Your task to perform on an android device: install app "Expedia: Hotels, Flights & Car" Image 0: 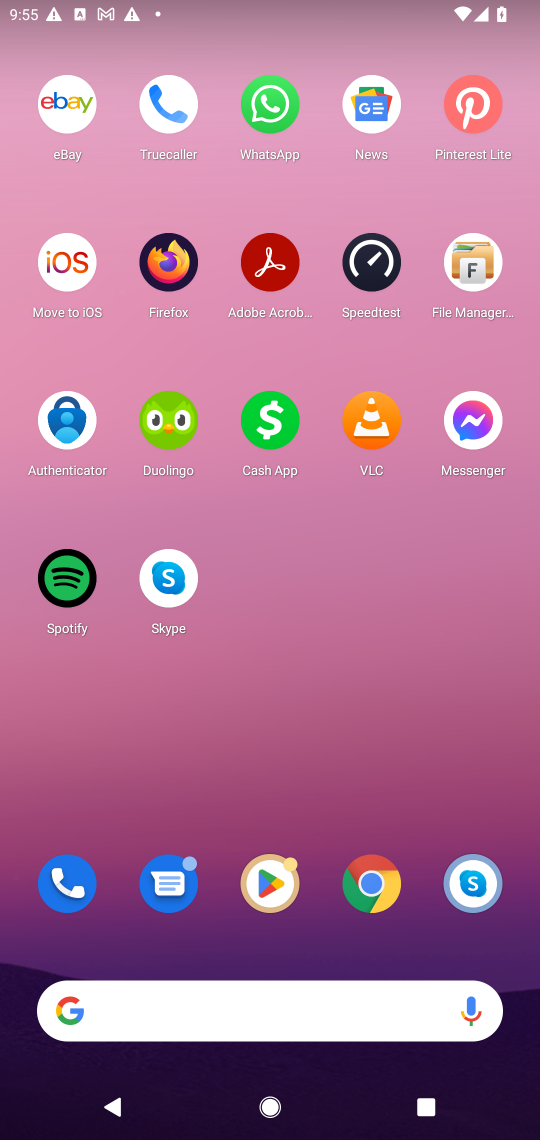
Step 0: click (277, 889)
Your task to perform on an android device: install app "Expedia: Hotels, Flights & Car" Image 1: 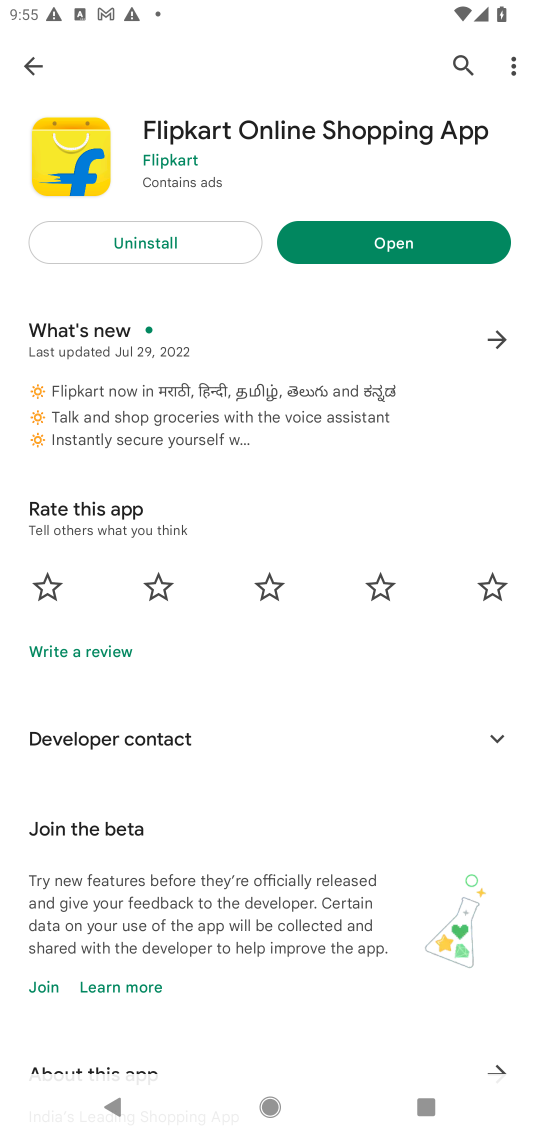
Step 1: click (448, 61)
Your task to perform on an android device: install app "Expedia: Hotels, Flights & Car" Image 2: 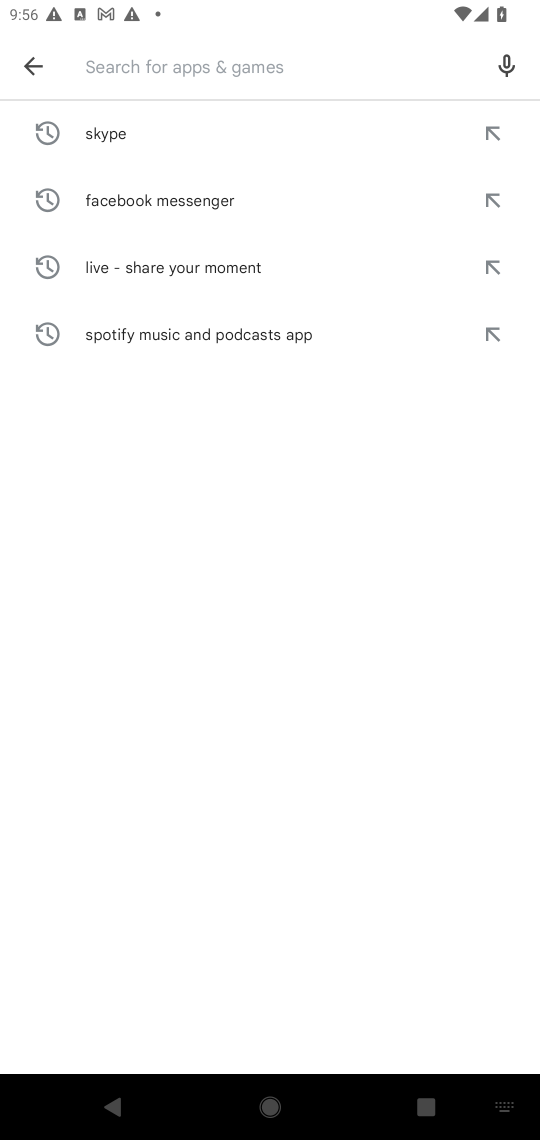
Step 2: type "Expedia: Hotels, Flights & Car"
Your task to perform on an android device: install app "Expedia: Hotels, Flights & Car" Image 3: 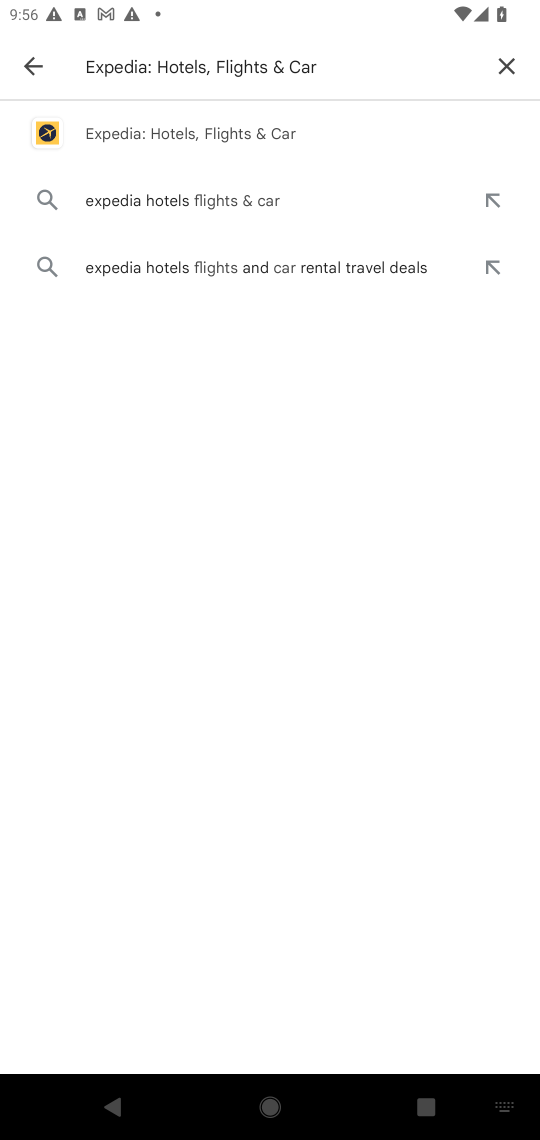
Step 3: click (307, 123)
Your task to perform on an android device: install app "Expedia: Hotels, Flights & Car" Image 4: 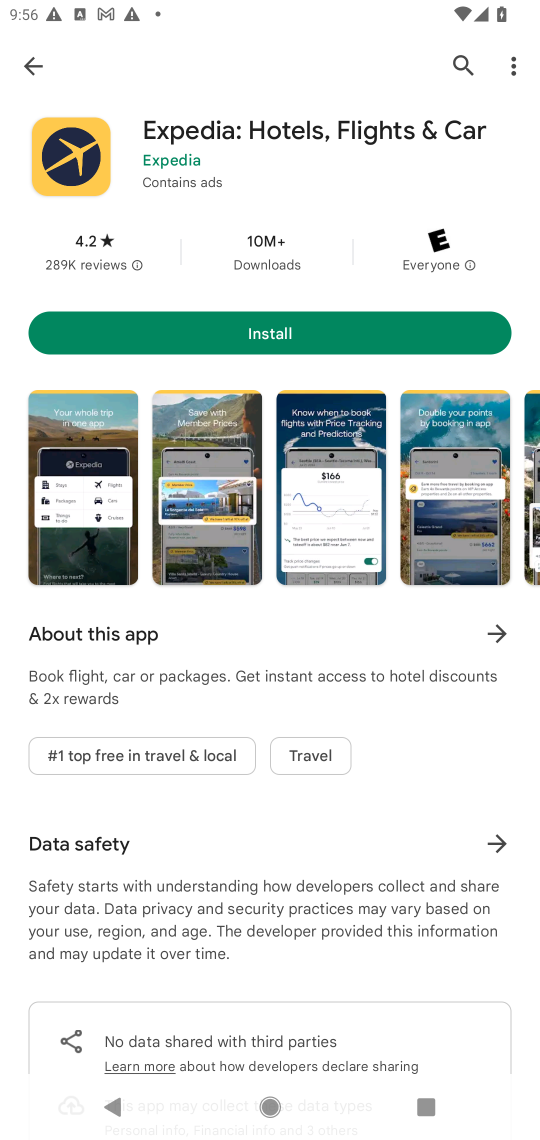
Step 4: click (296, 326)
Your task to perform on an android device: install app "Expedia: Hotels, Flights & Car" Image 5: 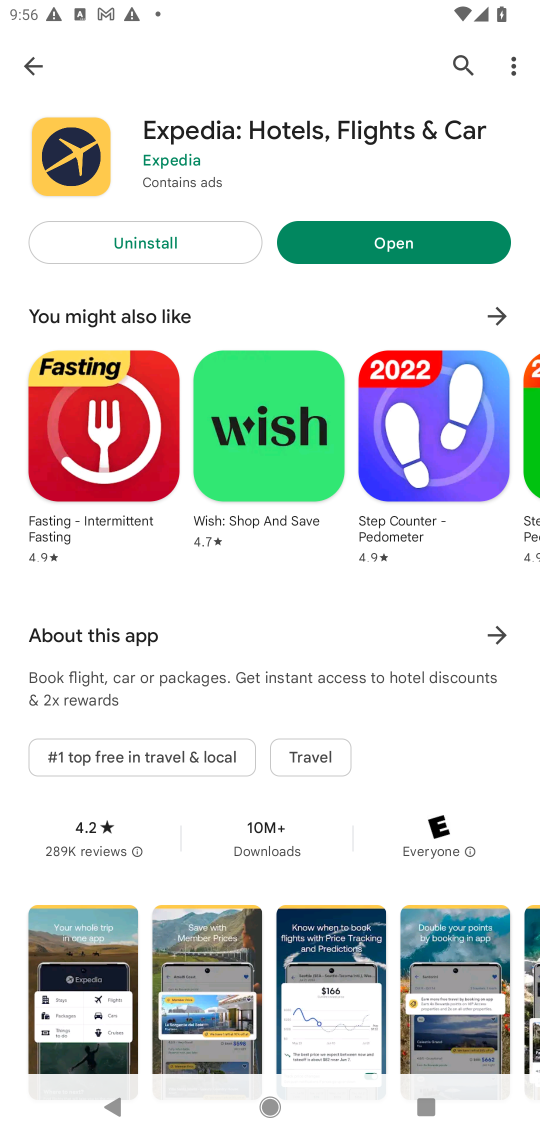
Step 5: task complete